Your task to perform on an android device: Show me popular games on the Play Store Image 0: 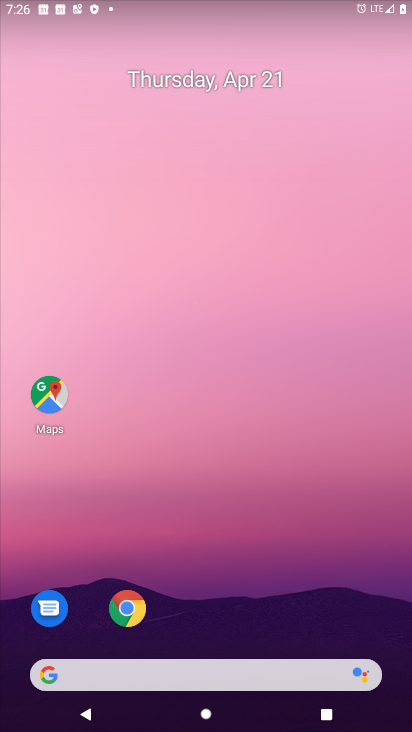
Step 0: drag from (278, 614) to (352, 172)
Your task to perform on an android device: Show me popular games on the Play Store Image 1: 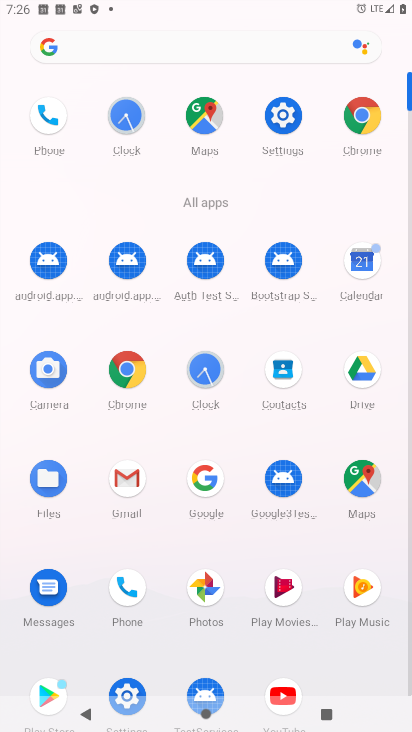
Step 1: click (50, 682)
Your task to perform on an android device: Show me popular games on the Play Store Image 2: 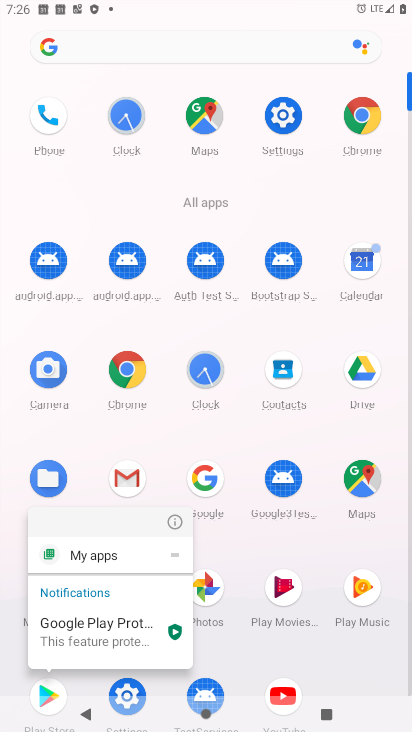
Step 2: drag from (319, 623) to (289, 467)
Your task to perform on an android device: Show me popular games on the Play Store Image 3: 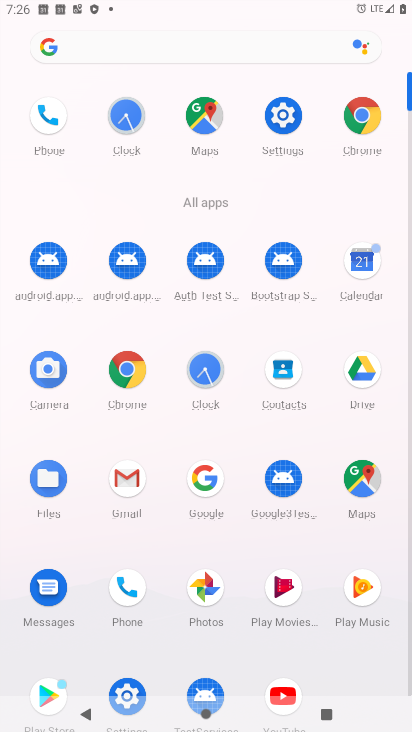
Step 3: click (51, 682)
Your task to perform on an android device: Show me popular games on the Play Store Image 4: 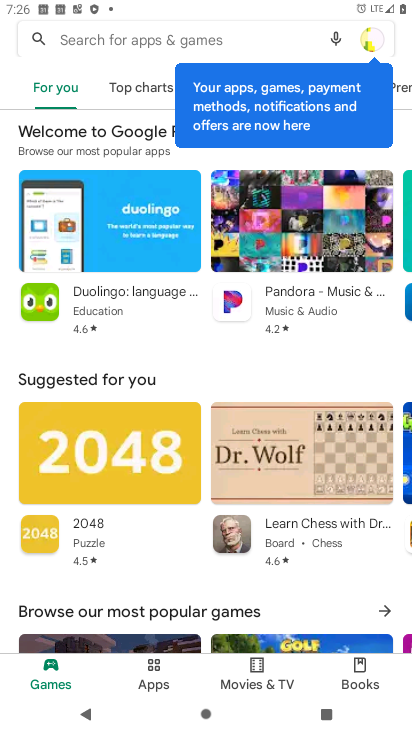
Step 4: task complete